Your task to perform on an android device: turn on data saver in the chrome app Image 0: 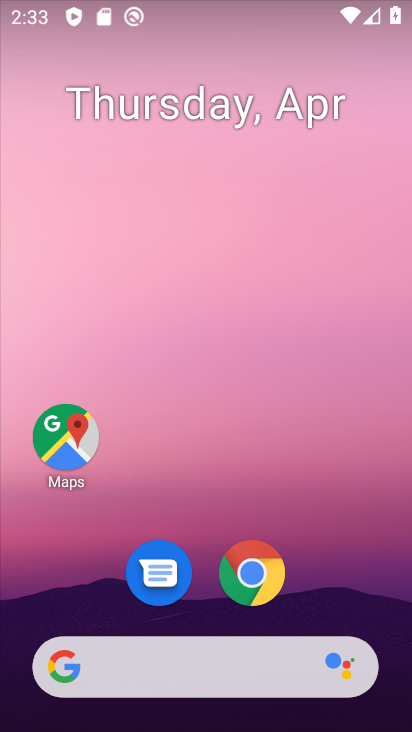
Step 0: drag from (333, 604) to (251, 68)
Your task to perform on an android device: turn on data saver in the chrome app Image 1: 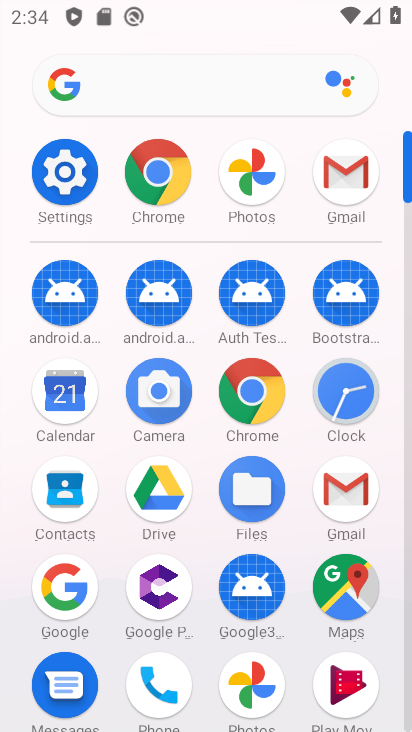
Step 1: click (138, 169)
Your task to perform on an android device: turn on data saver in the chrome app Image 2: 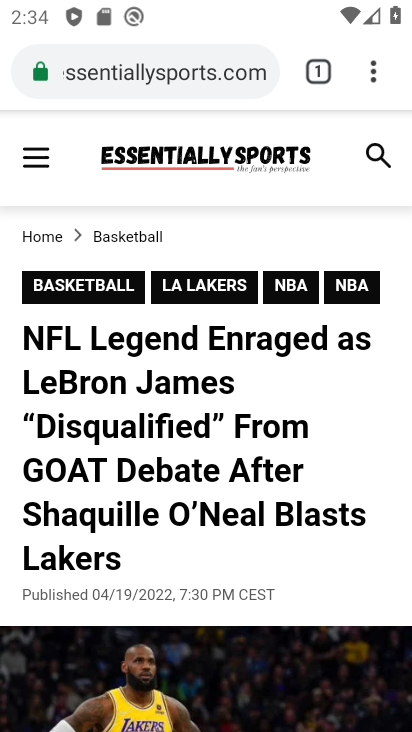
Step 2: press back button
Your task to perform on an android device: turn on data saver in the chrome app Image 3: 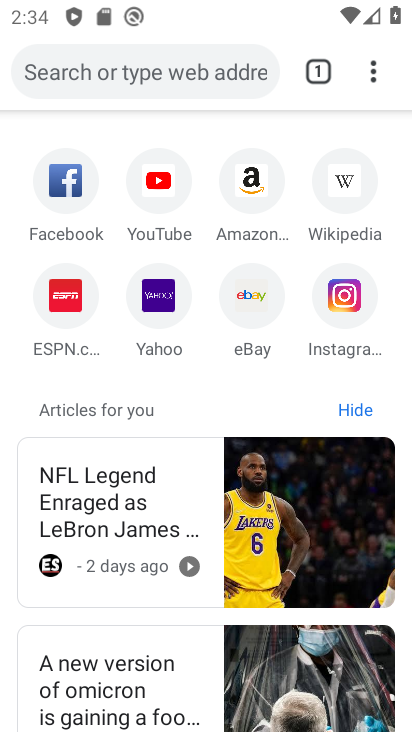
Step 3: click (369, 68)
Your task to perform on an android device: turn on data saver in the chrome app Image 4: 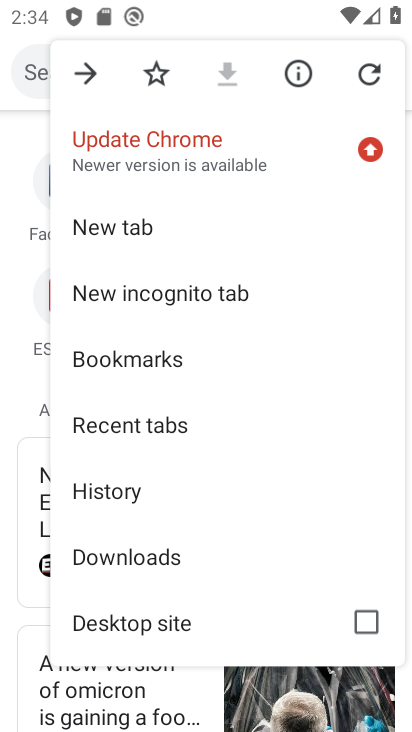
Step 4: drag from (165, 604) to (154, 292)
Your task to perform on an android device: turn on data saver in the chrome app Image 5: 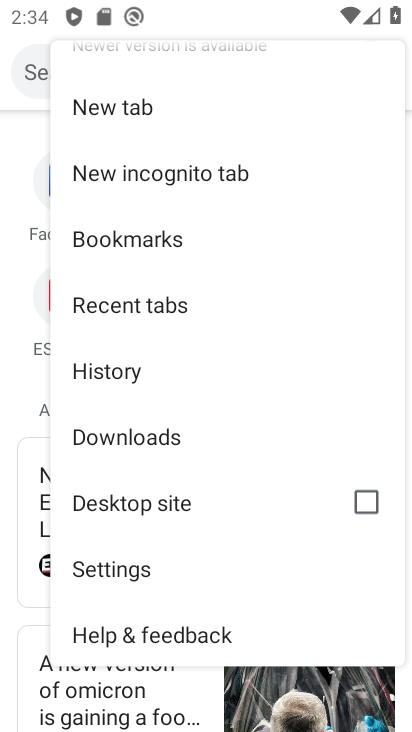
Step 5: click (120, 576)
Your task to perform on an android device: turn on data saver in the chrome app Image 6: 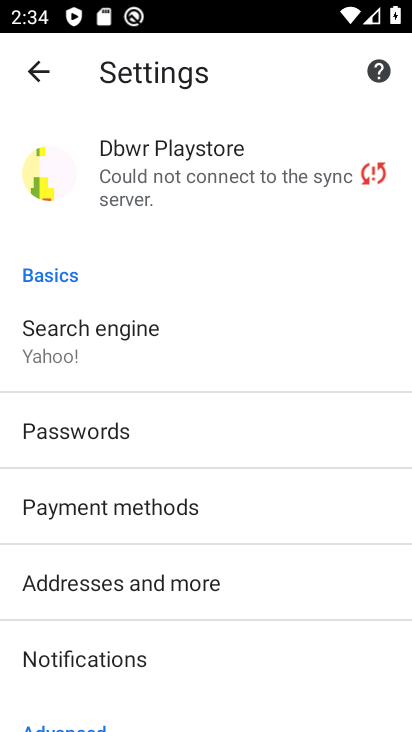
Step 6: drag from (125, 622) to (97, 193)
Your task to perform on an android device: turn on data saver in the chrome app Image 7: 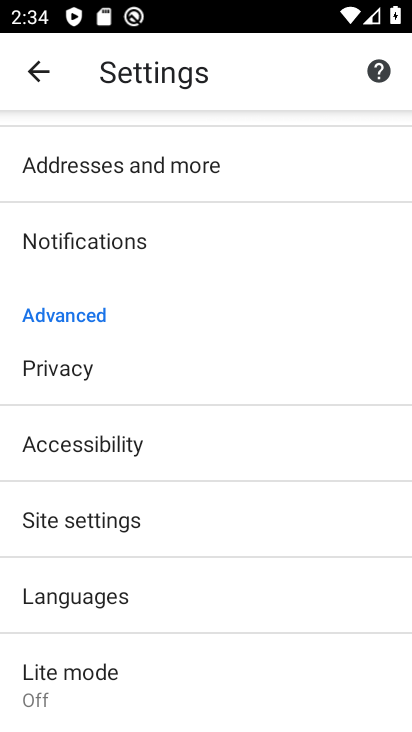
Step 7: click (143, 678)
Your task to perform on an android device: turn on data saver in the chrome app Image 8: 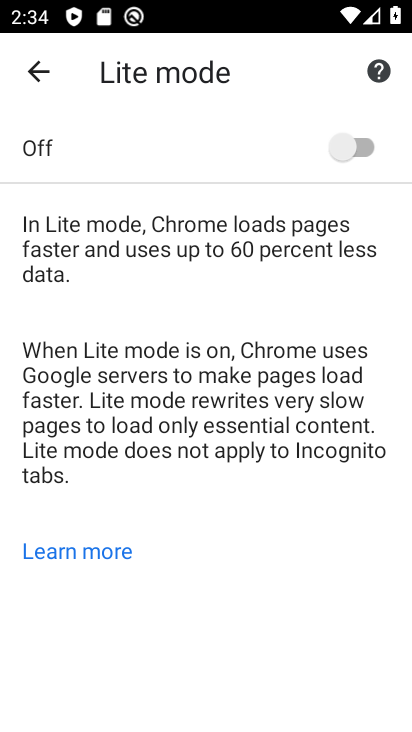
Step 8: click (342, 160)
Your task to perform on an android device: turn on data saver in the chrome app Image 9: 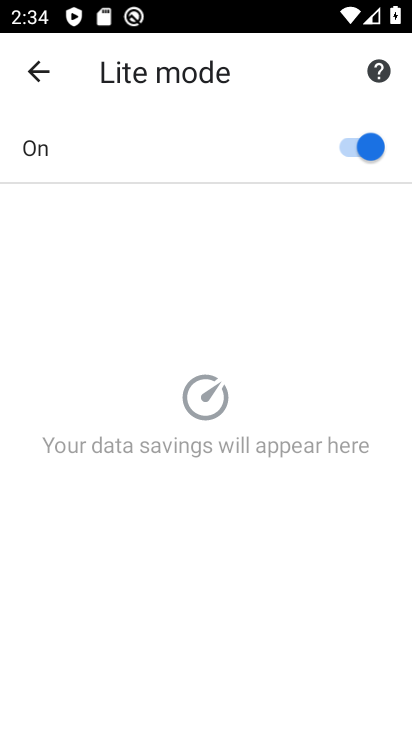
Step 9: task complete